Your task to perform on an android device: turn notification dots on Image 0: 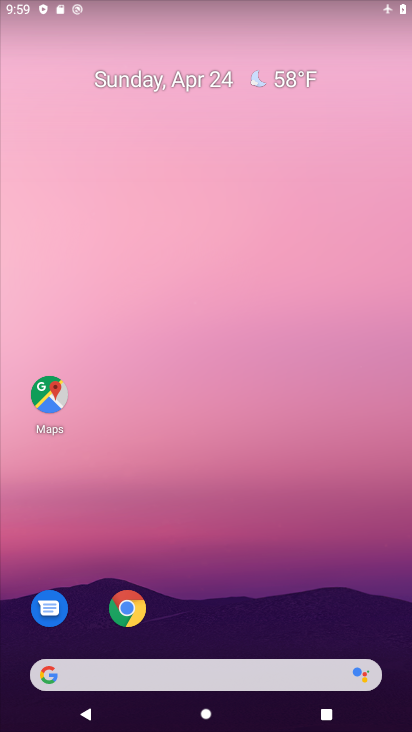
Step 0: drag from (278, 613) to (229, 23)
Your task to perform on an android device: turn notification dots on Image 1: 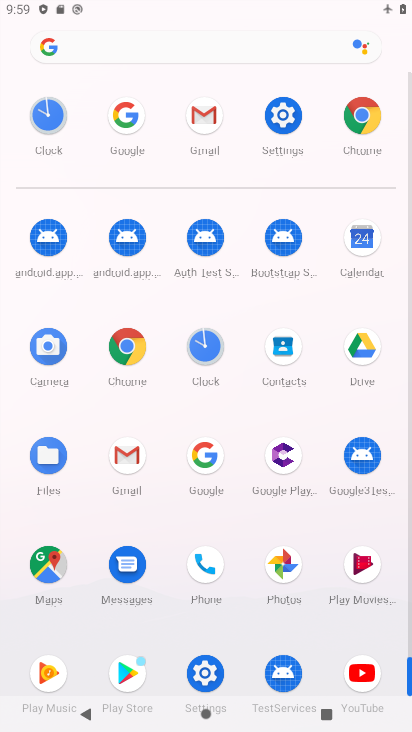
Step 1: click (273, 122)
Your task to perform on an android device: turn notification dots on Image 2: 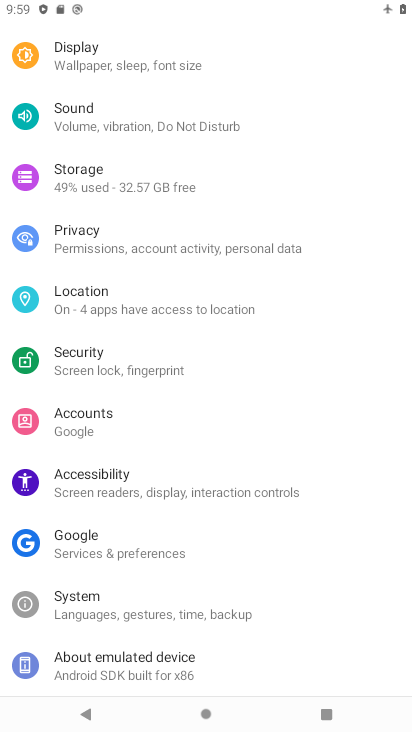
Step 2: drag from (223, 281) to (248, 622)
Your task to perform on an android device: turn notification dots on Image 3: 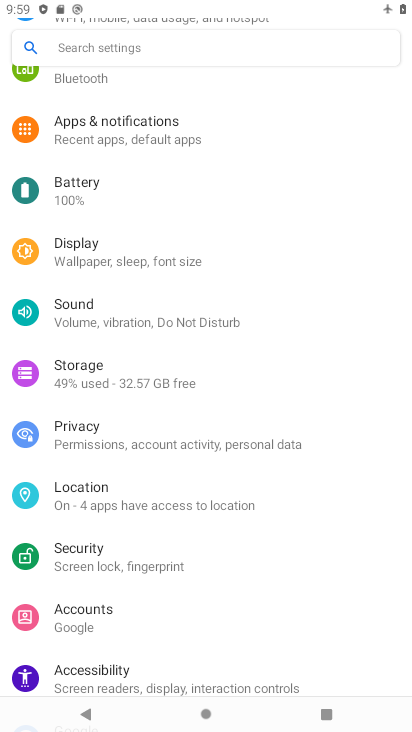
Step 3: click (124, 126)
Your task to perform on an android device: turn notification dots on Image 4: 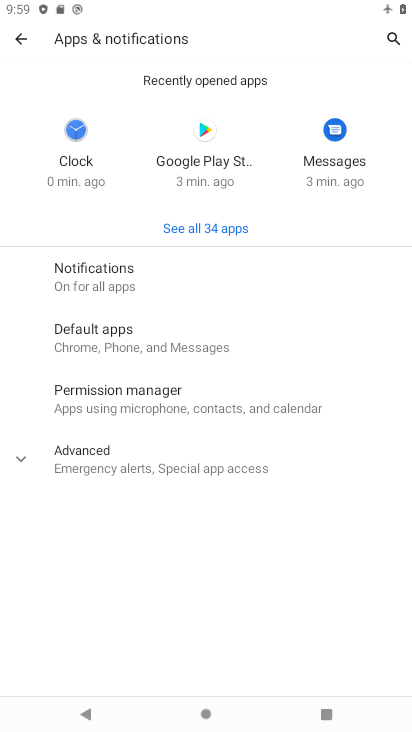
Step 4: click (95, 275)
Your task to perform on an android device: turn notification dots on Image 5: 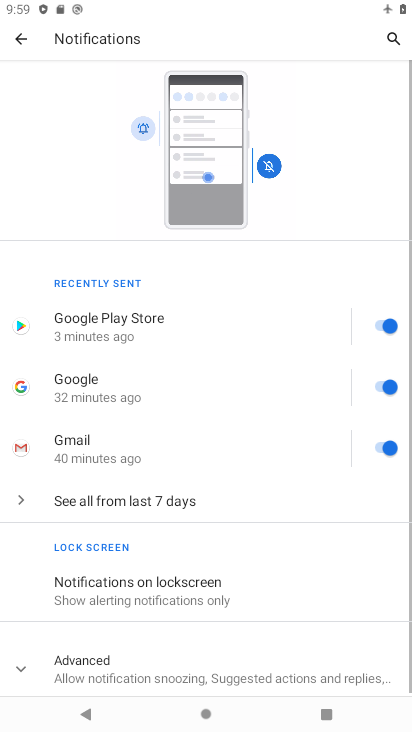
Step 5: drag from (219, 572) to (167, 59)
Your task to perform on an android device: turn notification dots on Image 6: 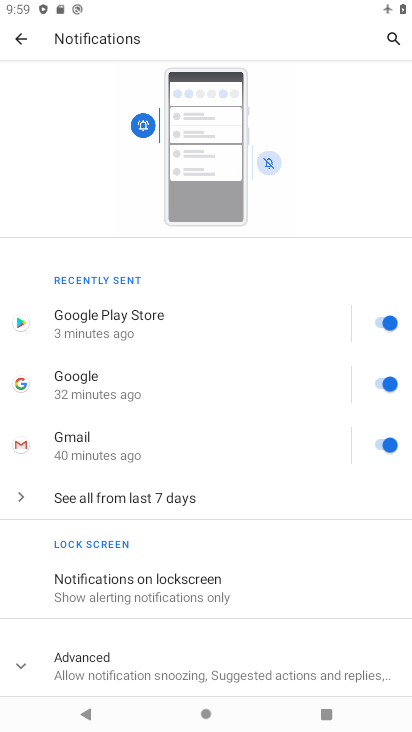
Step 6: click (190, 663)
Your task to perform on an android device: turn notification dots on Image 7: 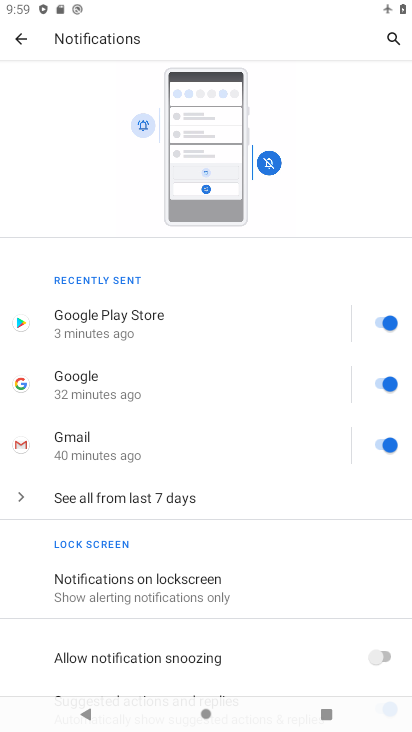
Step 7: drag from (205, 555) to (138, 132)
Your task to perform on an android device: turn notification dots on Image 8: 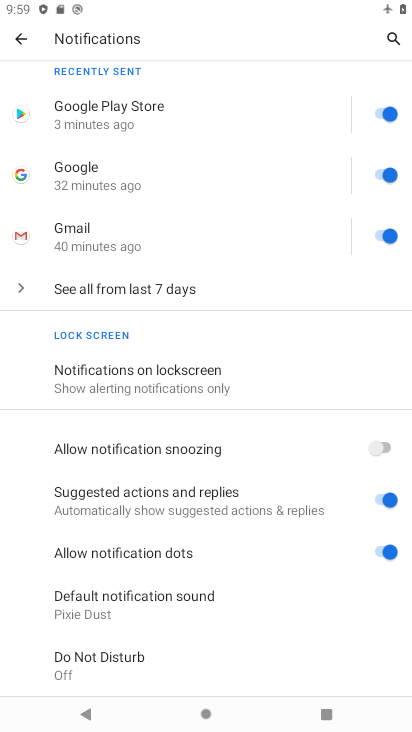
Step 8: click (385, 542)
Your task to perform on an android device: turn notification dots on Image 9: 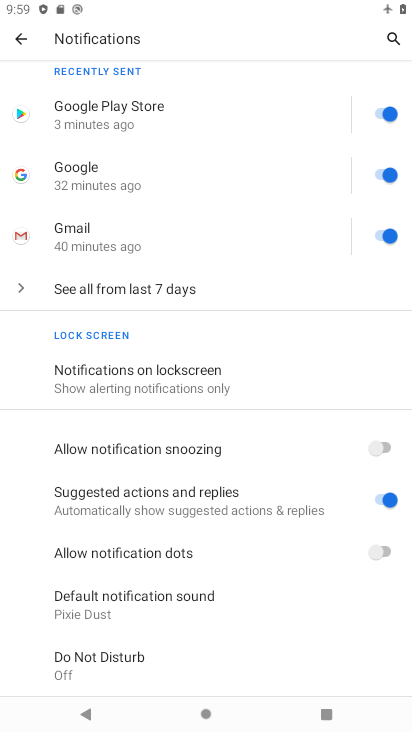
Step 9: task complete